Your task to perform on an android device: check the backup settings in the google photos Image 0: 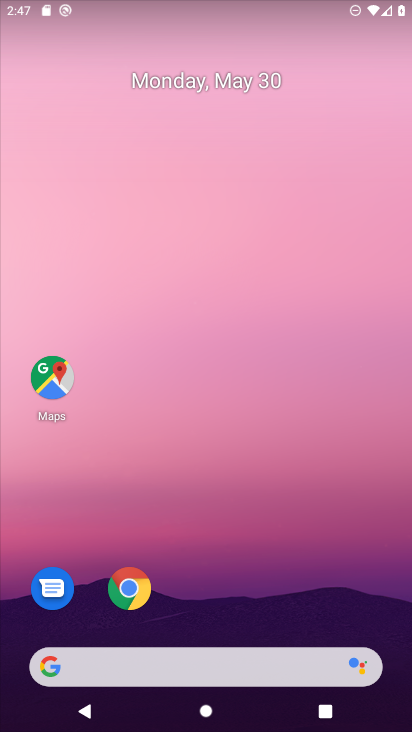
Step 0: drag from (246, 610) to (269, 257)
Your task to perform on an android device: check the backup settings in the google photos Image 1: 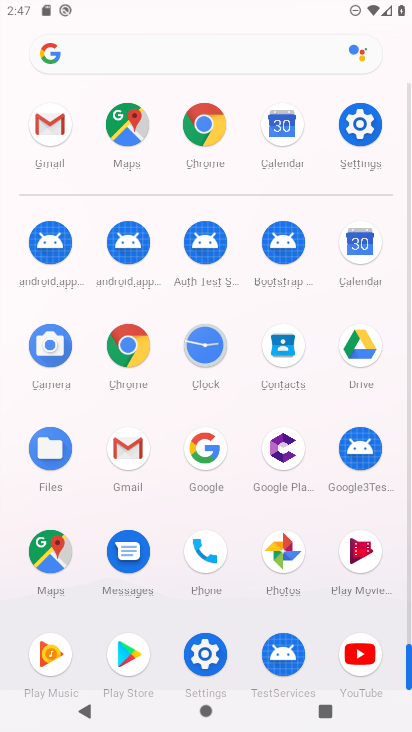
Step 1: click (288, 542)
Your task to perform on an android device: check the backup settings in the google photos Image 2: 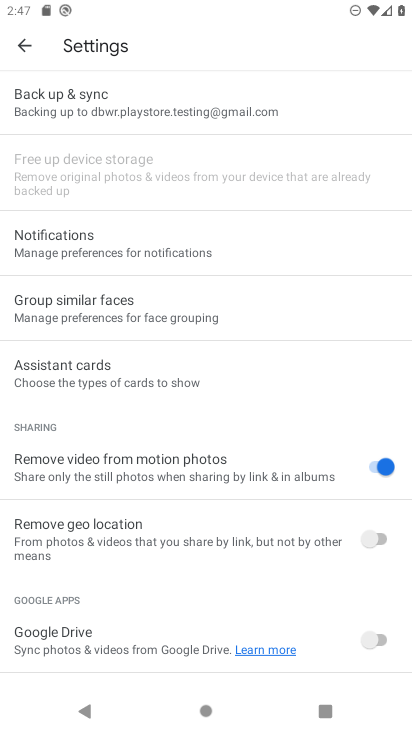
Step 2: click (118, 106)
Your task to perform on an android device: check the backup settings in the google photos Image 3: 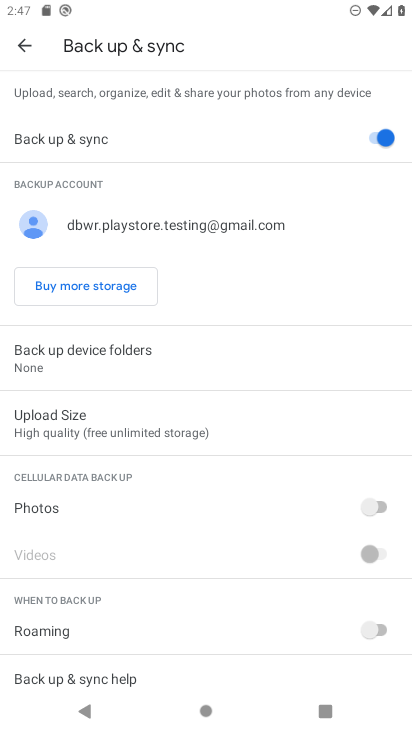
Step 3: task complete